Your task to perform on an android device: Open maps Image 0: 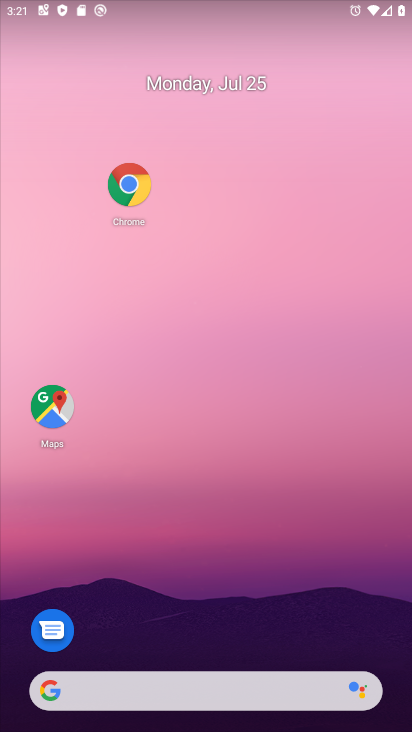
Step 0: drag from (349, 630) to (177, 175)
Your task to perform on an android device: Open maps Image 1: 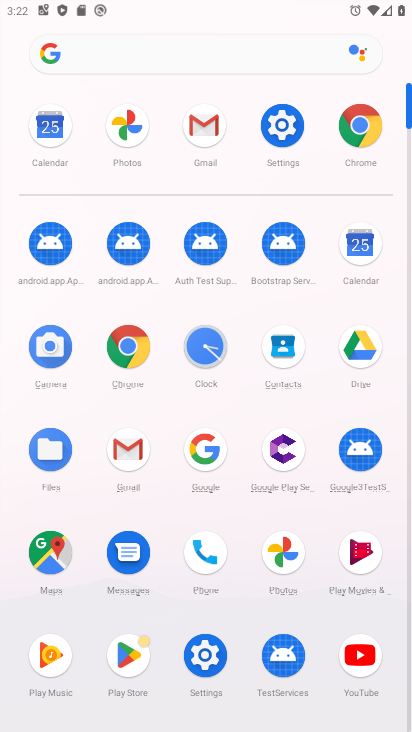
Step 1: click (45, 577)
Your task to perform on an android device: Open maps Image 2: 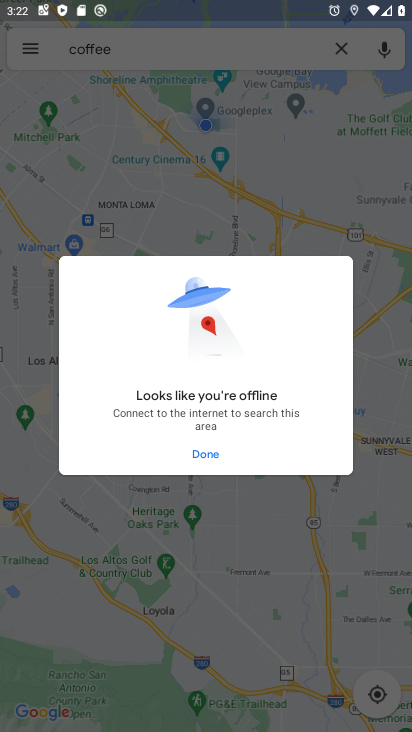
Step 2: click (190, 445)
Your task to perform on an android device: Open maps Image 3: 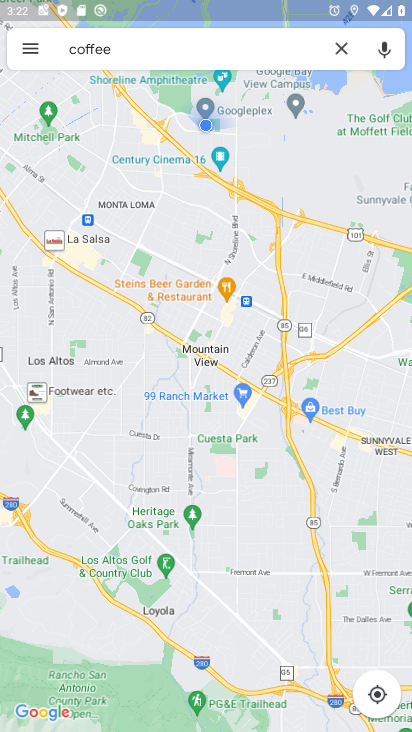
Step 3: task complete